Your task to perform on an android device: Open Reddit.com Image 0: 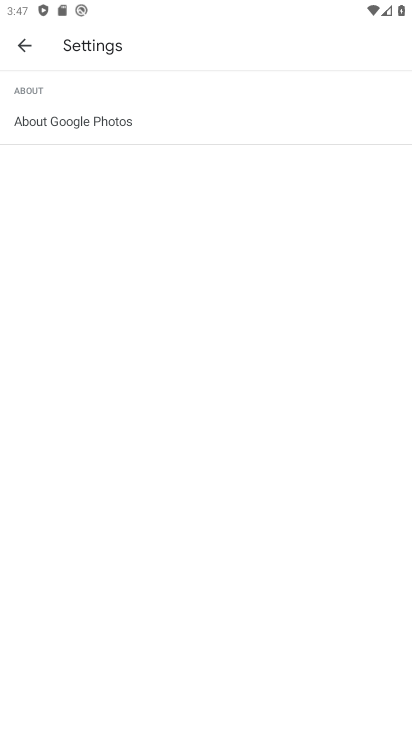
Step 0: press home button
Your task to perform on an android device: Open Reddit.com Image 1: 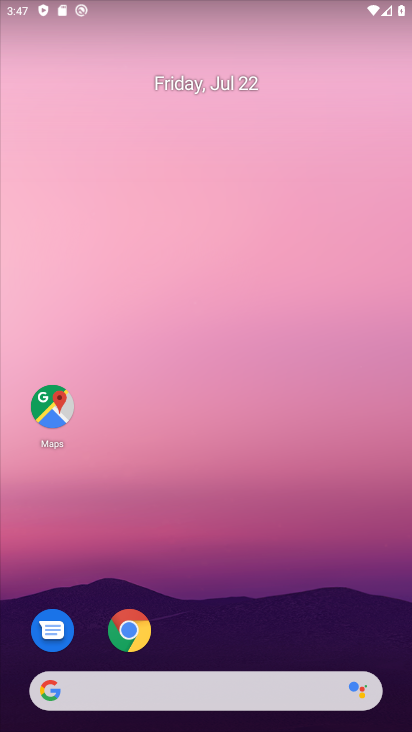
Step 1: click (129, 638)
Your task to perform on an android device: Open Reddit.com Image 2: 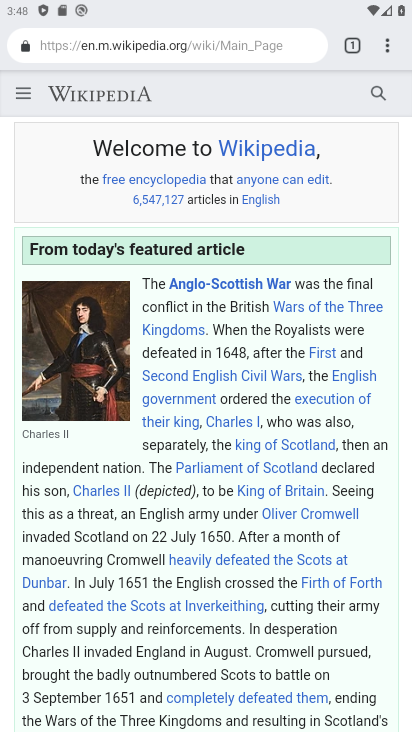
Step 2: click (167, 41)
Your task to perform on an android device: Open Reddit.com Image 3: 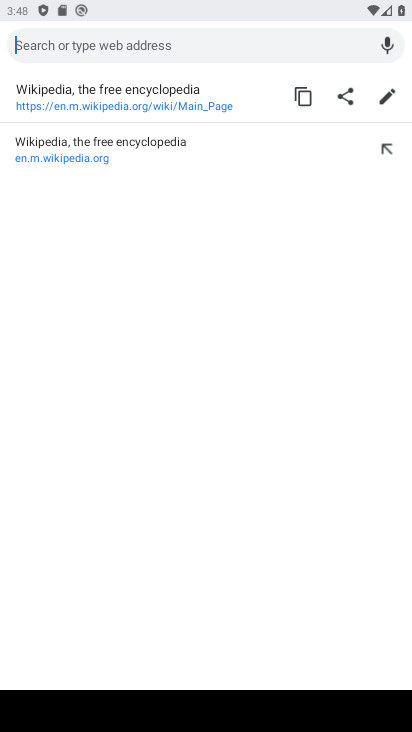
Step 3: type "Reddit.com"
Your task to perform on an android device: Open Reddit.com Image 4: 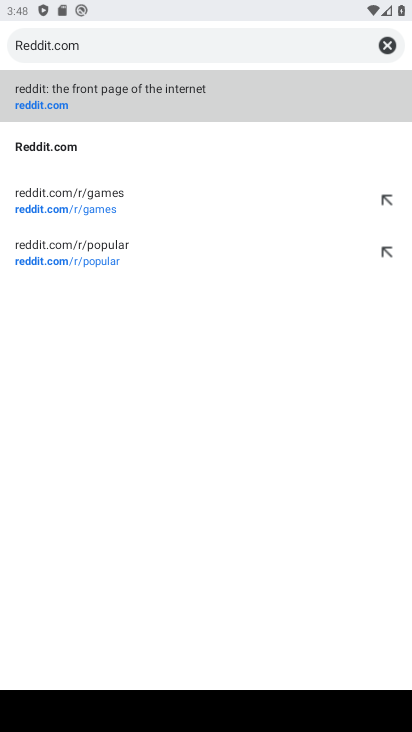
Step 4: click (56, 145)
Your task to perform on an android device: Open Reddit.com Image 5: 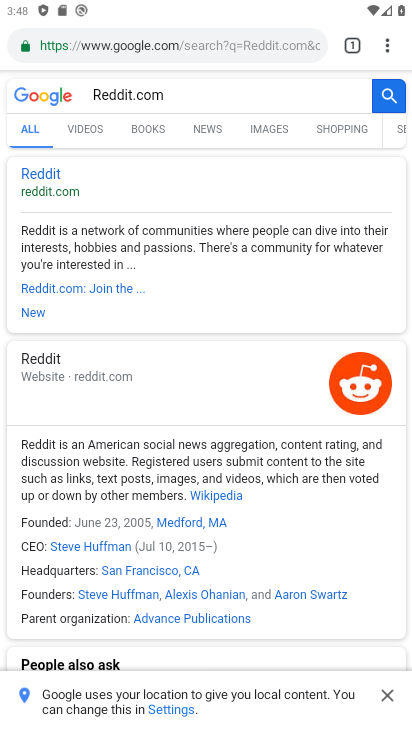
Step 5: task complete